Your task to perform on an android device: Open CNN.com Image 0: 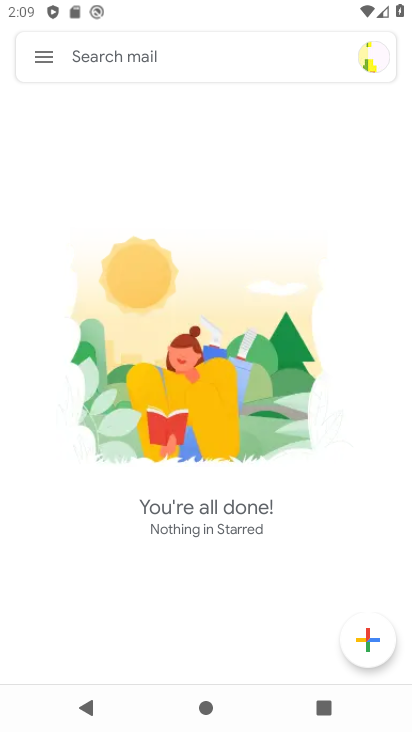
Step 0: press home button
Your task to perform on an android device: Open CNN.com Image 1: 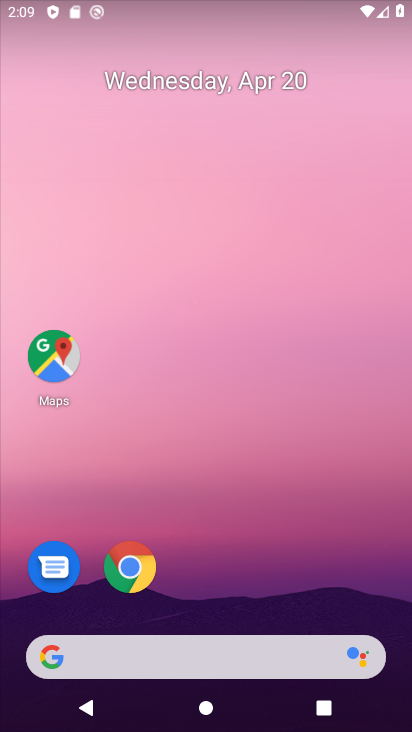
Step 1: click (144, 559)
Your task to perform on an android device: Open CNN.com Image 2: 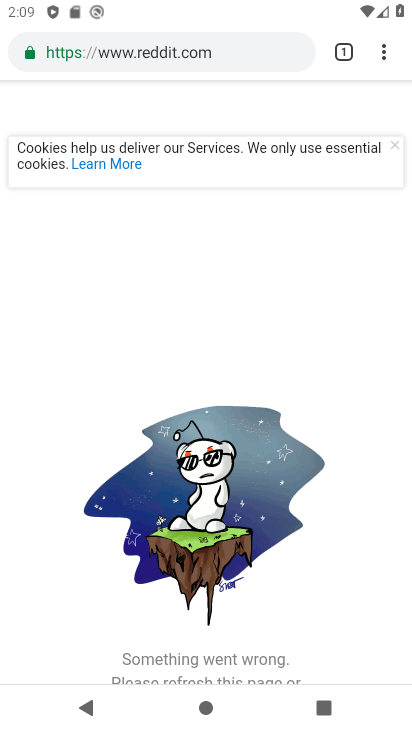
Step 2: click (175, 57)
Your task to perform on an android device: Open CNN.com Image 3: 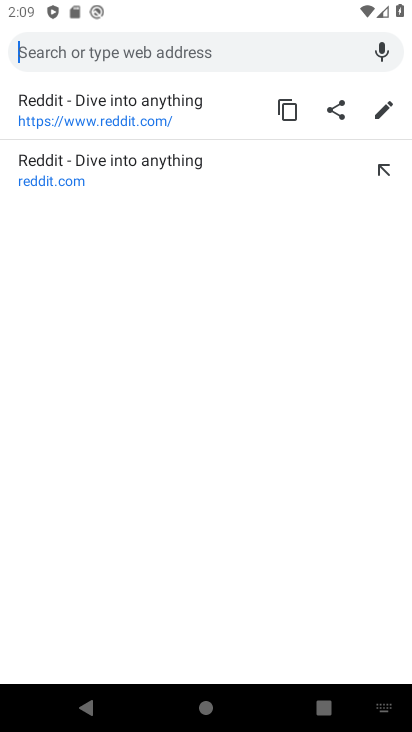
Step 3: type "cnn.com"
Your task to perform on an android device: Open CNN.com Image 4: 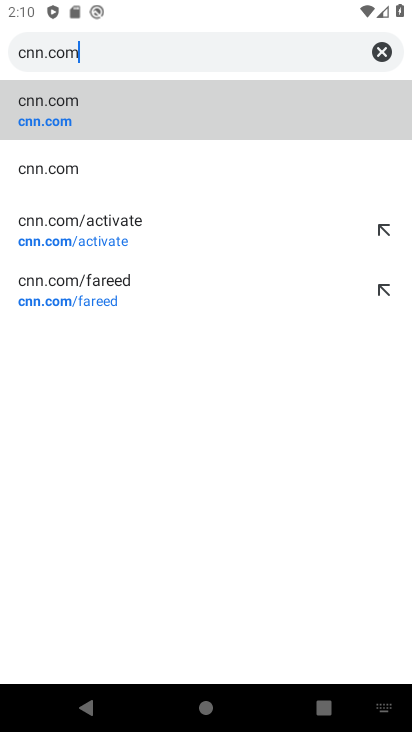
Step 4: click (159, 107)
Your task to perform on an android device: Open CNN.com Image 5: 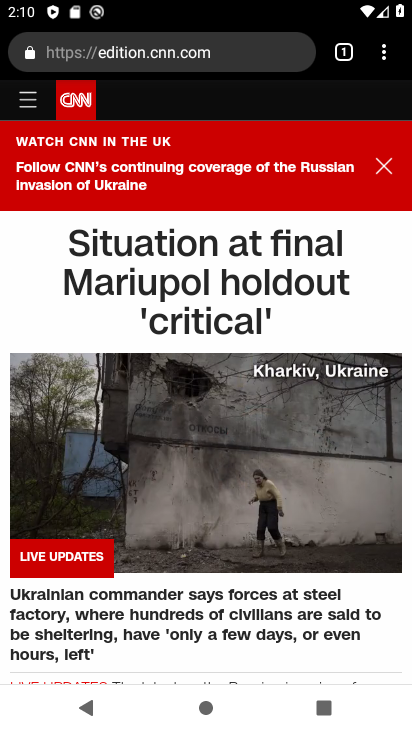
Step 5: task complete